Your task to perform on an android device: Open Maps and search for coffee Image 0: 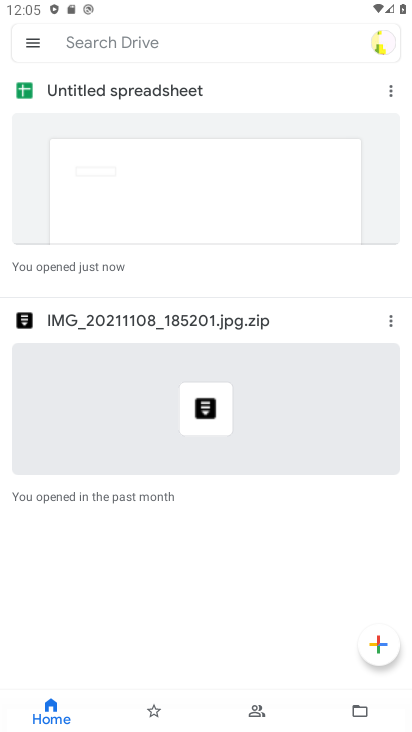
Step 0: press home button
Your task to perform on an android device: Open Maps and search for coffee Image 1: 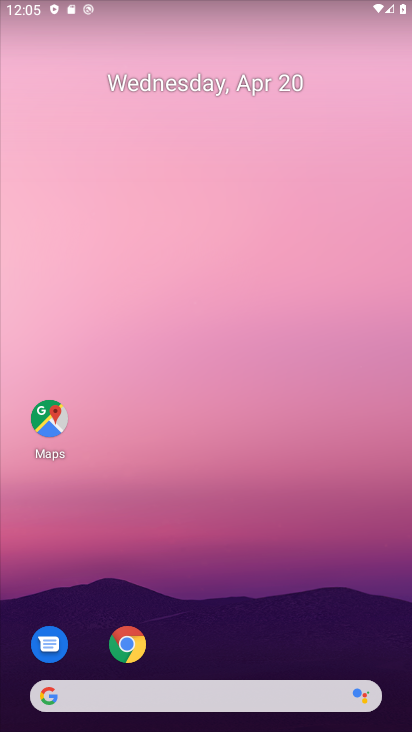
Step 1: click (43, 415)
Your task to perform on an android device: Open Maps and search for coffee Image 2: 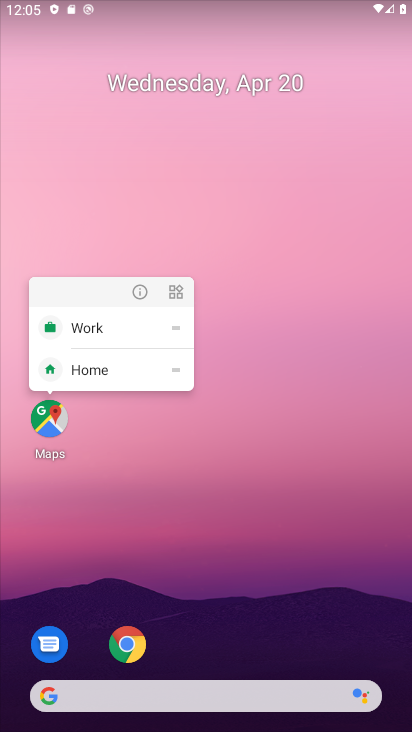
Step 2: click (43, 415)
Your task to perform on an android device: Open Maps and search for coffee Image 3: 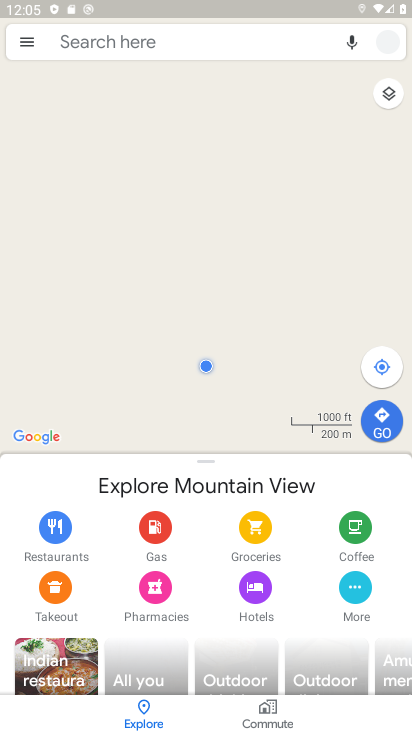
Step 3: click (255, 40)
Your task to perform on an android device: Open Maps and search for coffee Image 4: 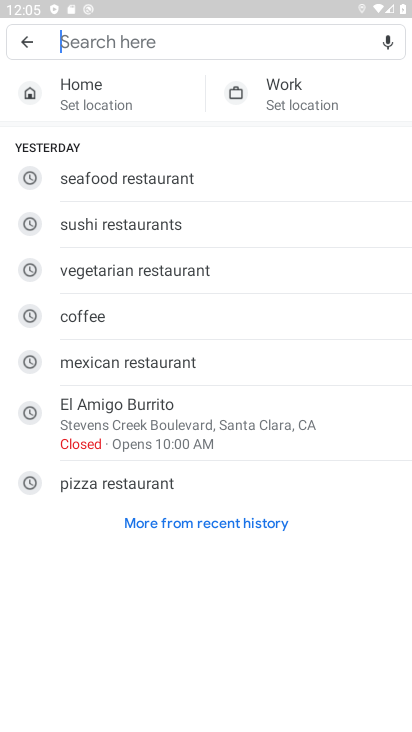
Step 4: click (255, 42)
Your task to perform on an android device: Open Maps and search for coffee Image 5: 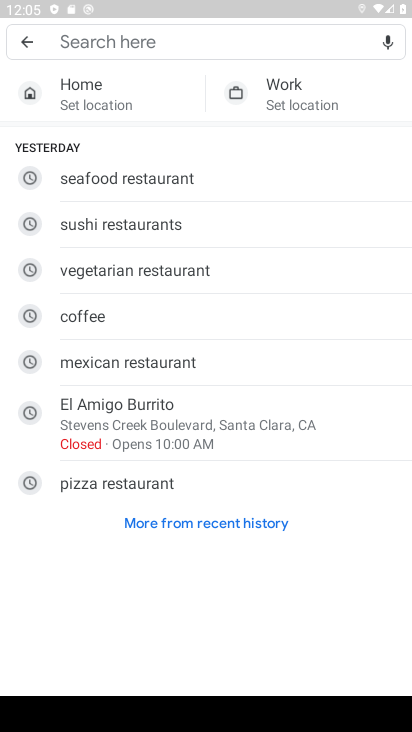
Step 5: click (138, 322)
Your task to perform on an android device: Open Maps and search for coffee Image 6: 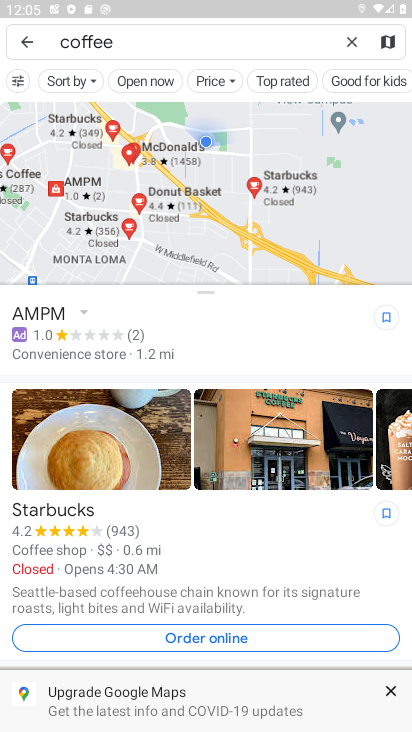
Step 6: task complete